Your task to perform on an android device: Clear the cart on target. Search for "macbook pro" on target, select the first entry, add it to the cart, then select checkout. Image 0: 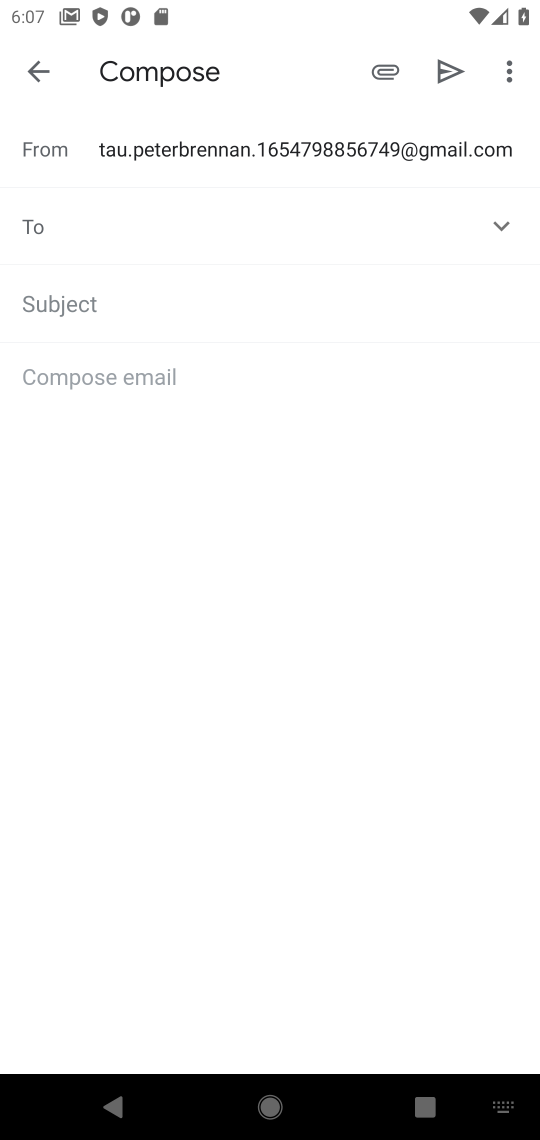
Step 0: press home button
Your task to perform on an android device: Clear the cart on target. Search for "macbook pro" on target, select the first entry, add it to the cart, then select checkout. Image 1: 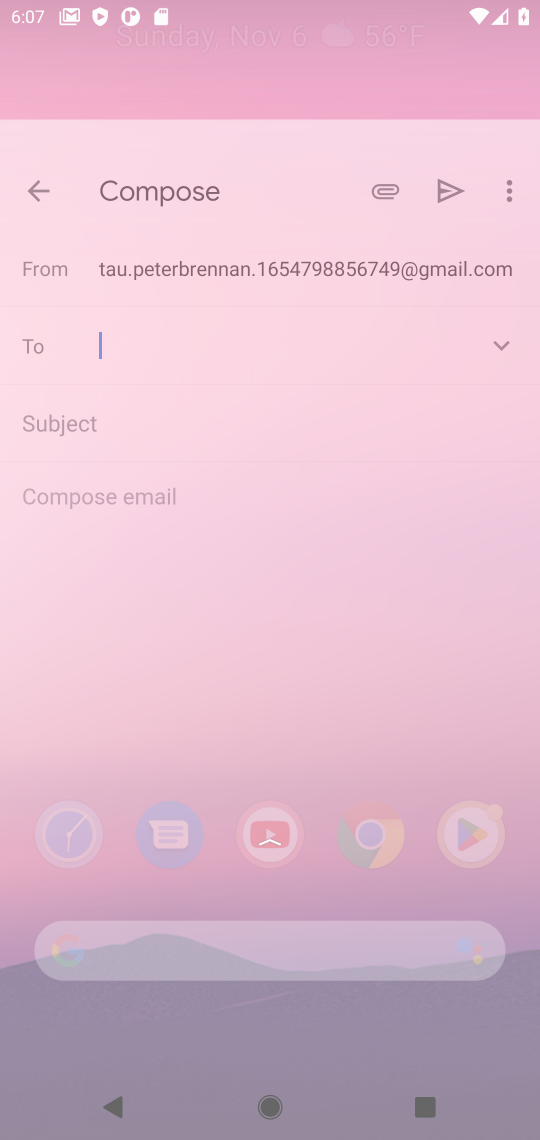
Step 1: press home button
Your task to perform on an android device: Clear the cart on target. Search for "macbook pro" on target, select the first entry, add it to the cart, then select checkout. Image 2: 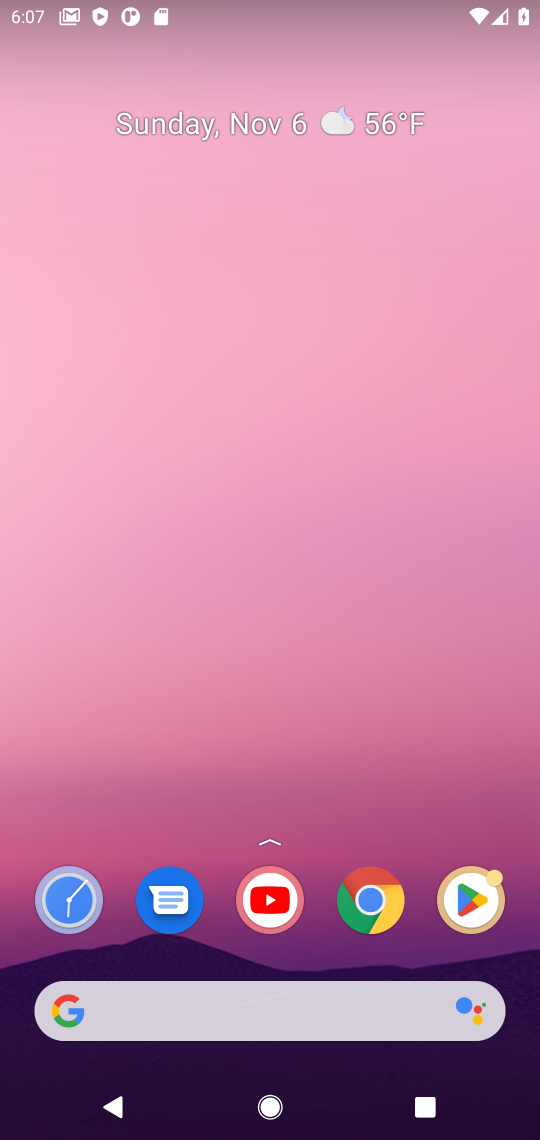
Step 2: drag from (326, 788) to (379, 137)
Your task to perform on an android device: Clear the cart on target. Search for "macbook pro" on target, select the first entry, add it to the cart, then select checkout. Image 3: 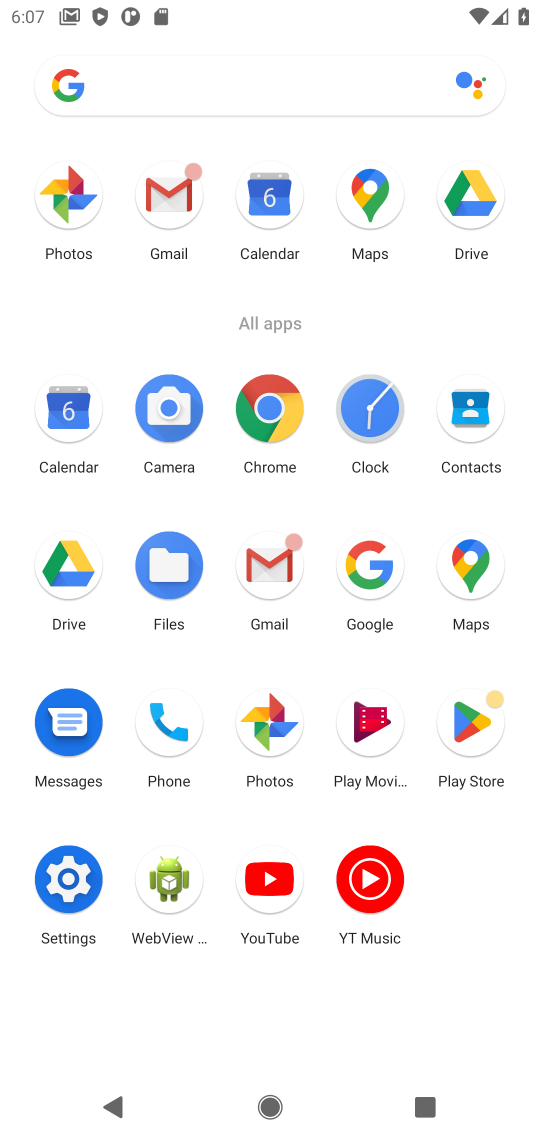
Step 3: click (265, 406)
Your task to perform on an android device: Clear the cart on target. Search for "macbook pro" on target, select the first entry, add it to the cart, then select checkout. Image 4: 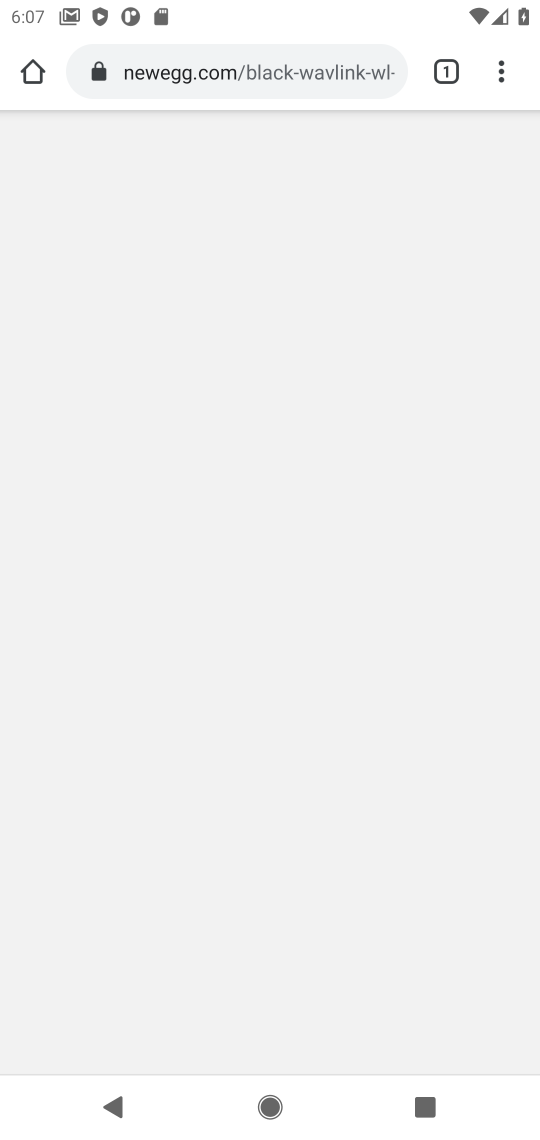
Step 4: click (261, 66)
Your task to perform on an android device: Clear the cart on target. Search for "macbook pro" on target, select the first entry, add it to the cart, then select checkout. Image 5: 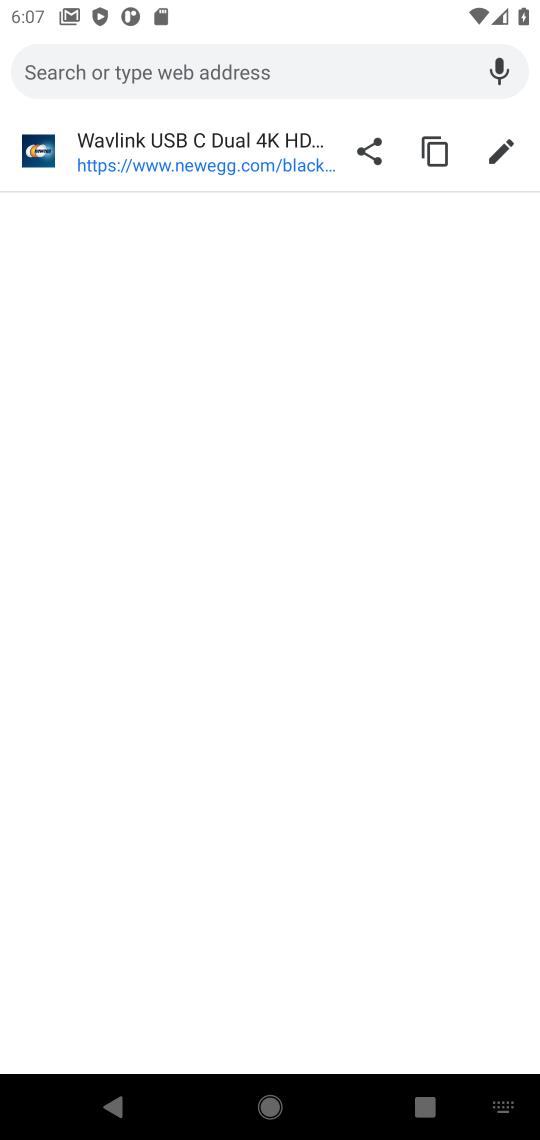
Step 5: type "target.com"
Your task to perform on an android device: Clear the cart on target. Search for "macbook pro" on target, select the first entry, add it to the cart, then select checkout. Image 6: 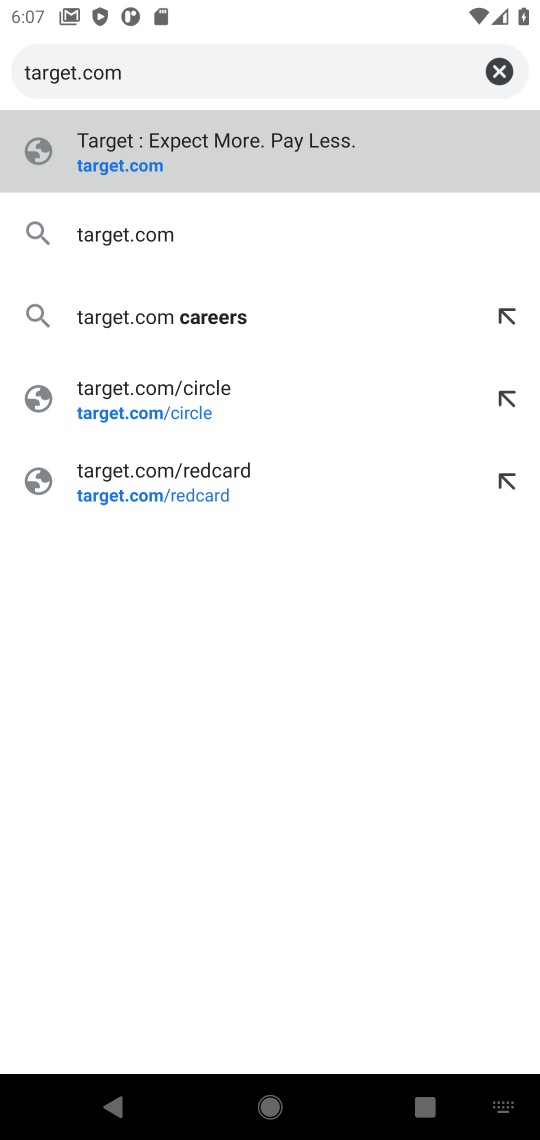
Step 6: press enter
Your task to perform on an android device: Clear the cart on target. Search for "macbook pro" on target, select the first entry, add it to the cart, then select checkout. Image 7: 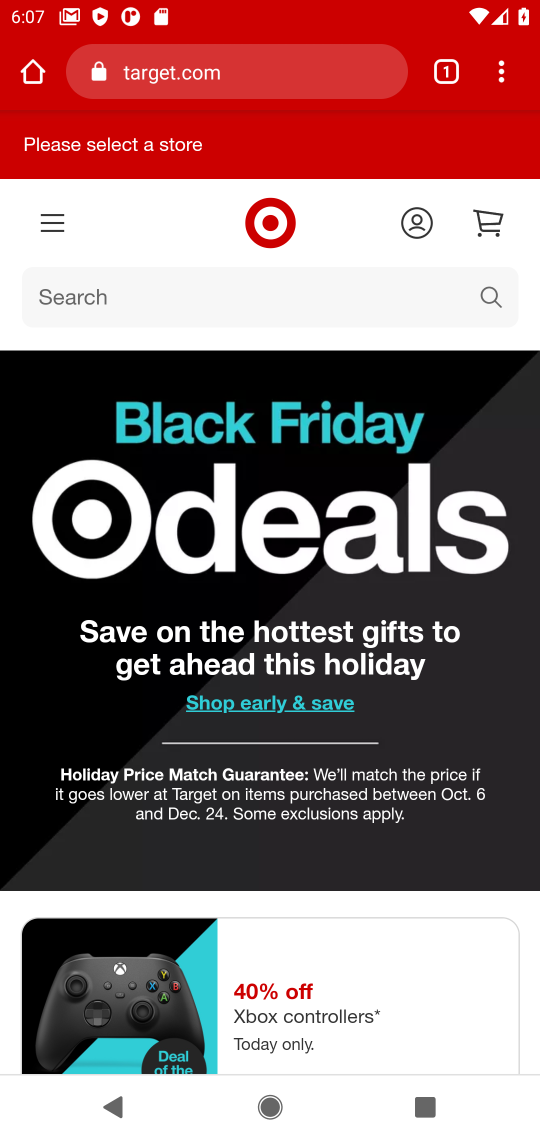
Step 7: click (490, 226)
Your task to perform on an android device: Clear the cart on target. Search for "macbook pro" on target, select the first entry, add it to the cart, then select checkout. Image 8: 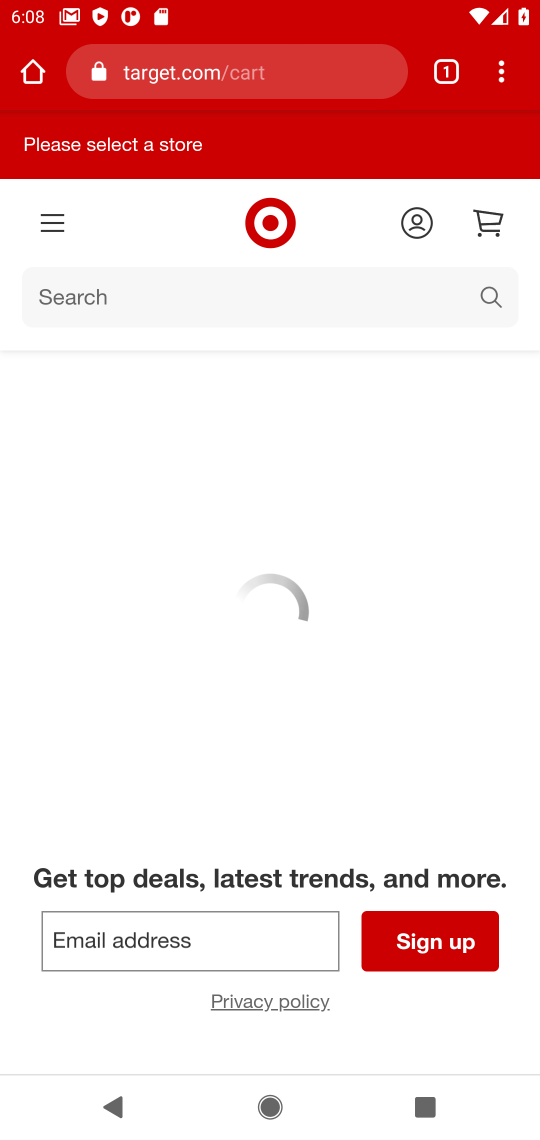
Step 8: click (330, 324)
Your task to perform on an android device: Clear the cart on target. Search for "macbook pro" on target, select the first entry, add it to the cart, then select checkout. Image 9: 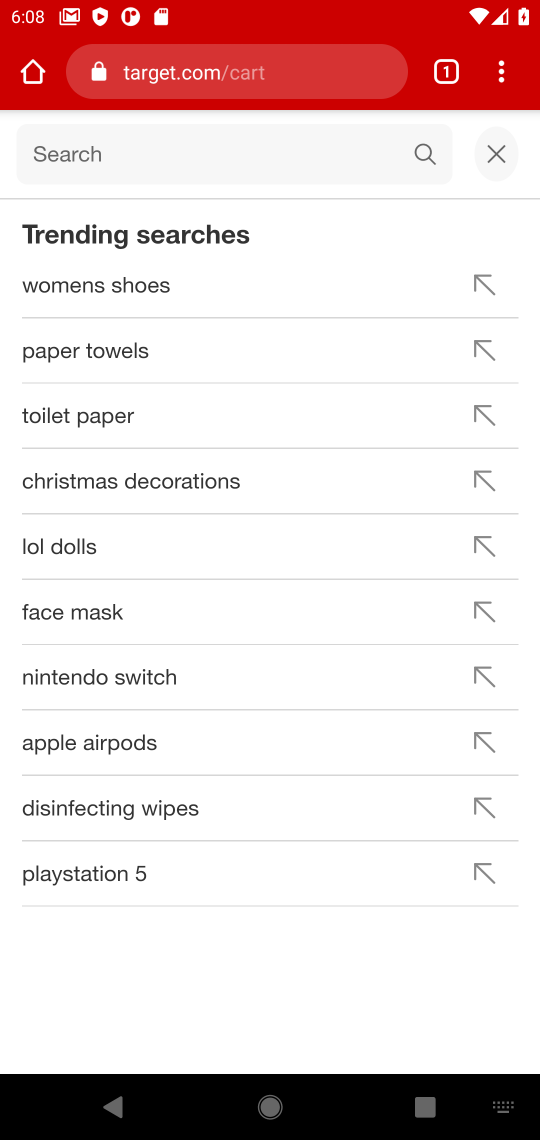
Step 9: type "macbook pro"
Your task to perform on an android device: Clear the cart on target. Search for "macbook pro" on target, select the first entry, add it to the cart, then select checkout. Image 10: 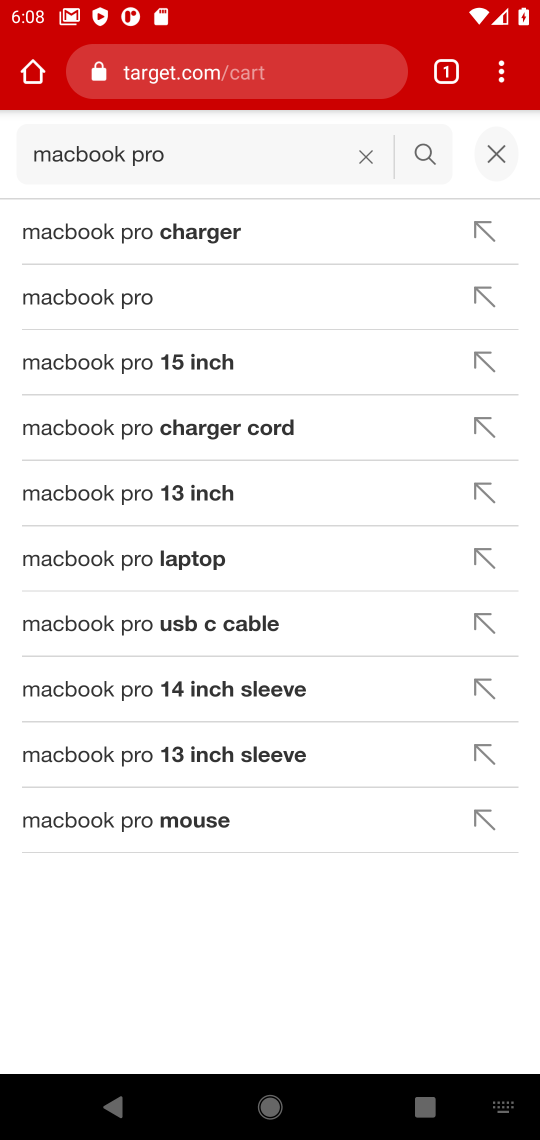
Step 10: press enter
Your task to perform on an android device: Clear the cart on target. Search for "macbook pro" on target, select the first entry, add it to the cart, then select checkout. Image 11: 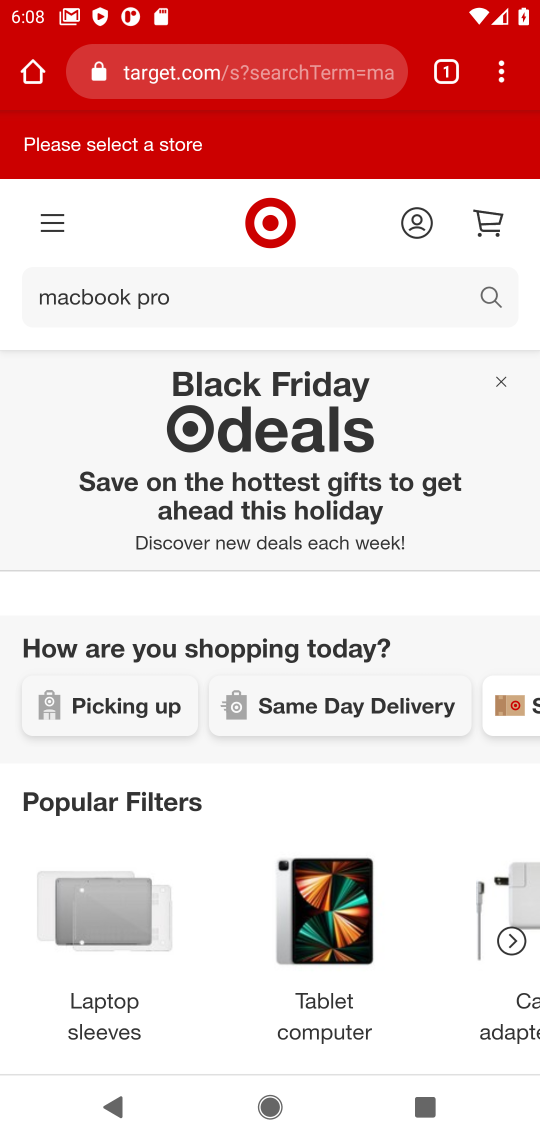
Step 11: task complete